Your task to perform on an android device: manage bookmarks in the chrome app Image 0: 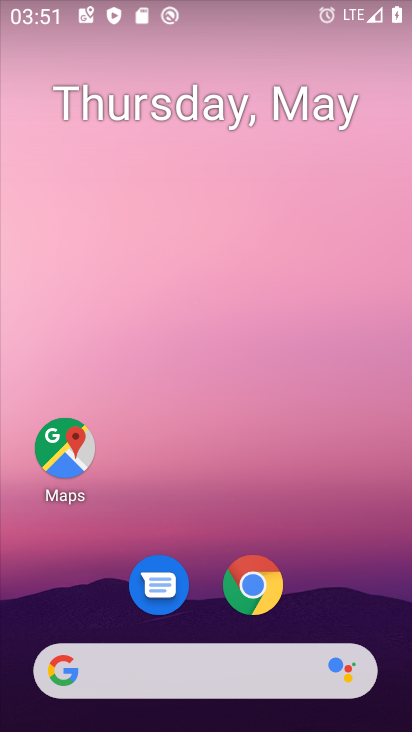
Step 0: click (252, 579)
Your task to perform on an android device: manage bookmarks in the chrome app Image 1: 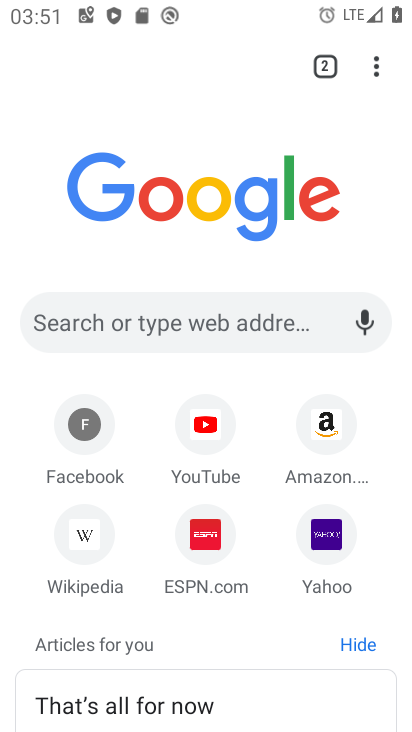
Step 1: click (373, 71)
Your task to perform on an android device: manage bookmarks in the chrome app Image 2: 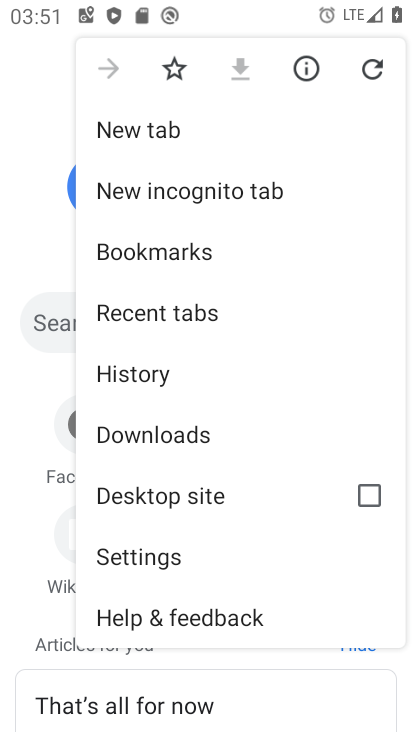
Step 2: click (224, 246)
Your task to perform on an android device: manage bookmarks in the chrome app Image 3: 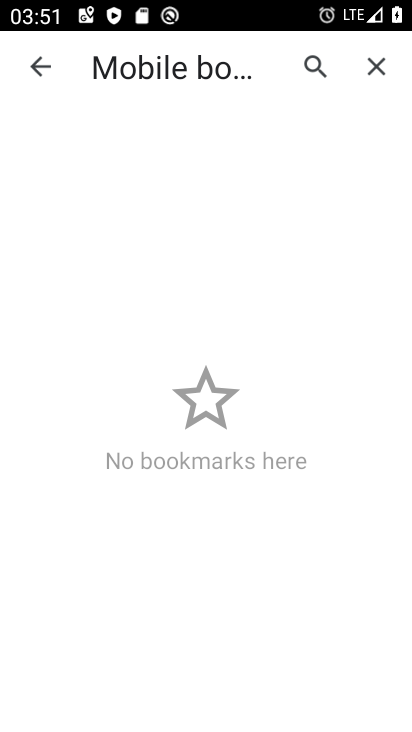
Step 3: task complete